Your task to perform on an android device: add a contact in the contacts app Image 0: 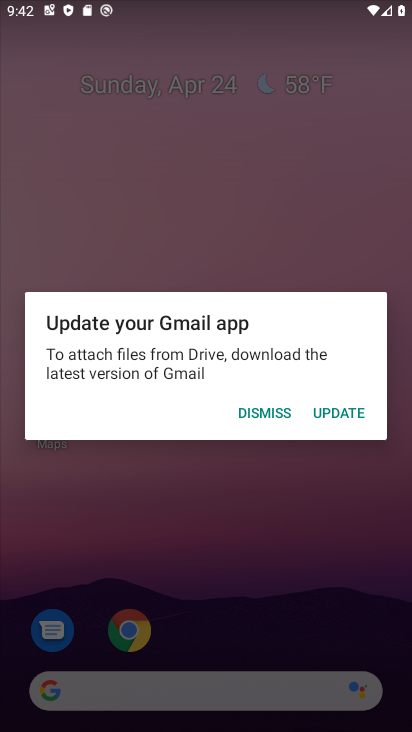
Step 0: press home button
Your task to perform on an android device: add a contact in the contacts app Image 1: 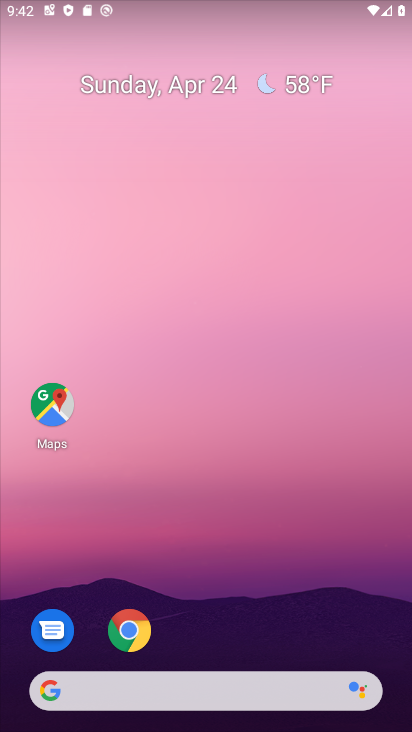
Step 1: drag from (250, 569) to (247, 170)
Your task to perform on an android device: add a contact in the contacts app Image 2: 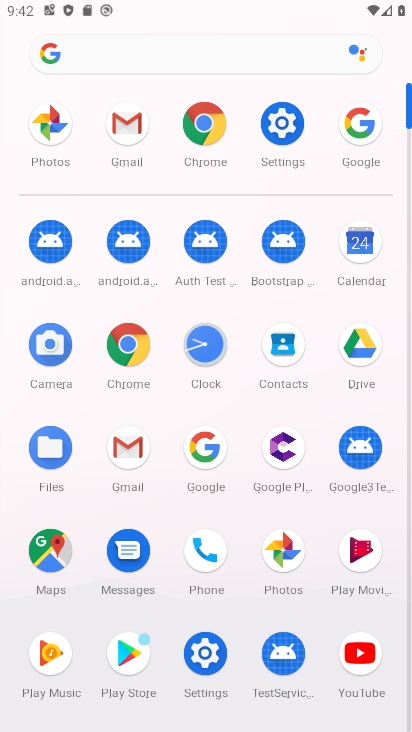
Step 2: click (296, 352)
Your task to perform on an android device: add a contact in the contacts app Image 3: 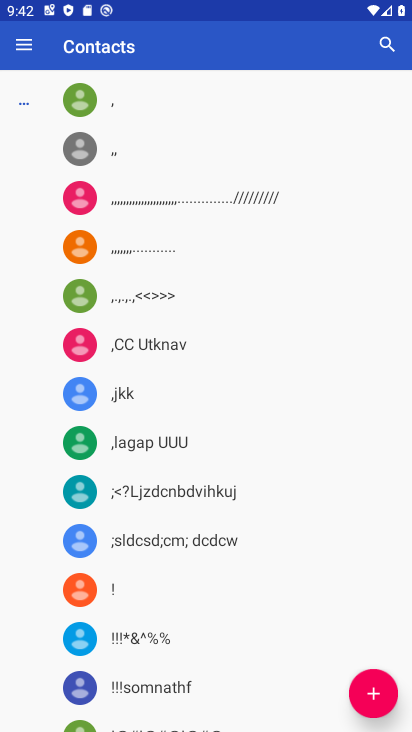
Step 3: click (380, 709)
Your task to perform on an android device: add a contact in the contacts app Image 4: 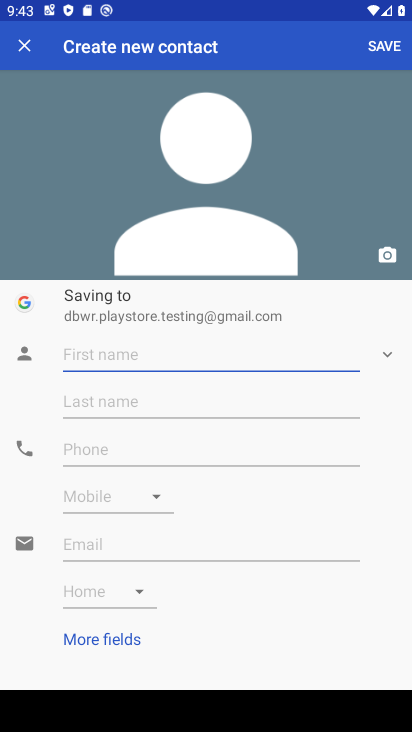
Step 4: type "jhvvcvuj"
Your task to perform on an android device: add a contact in the contacts app Image 5: 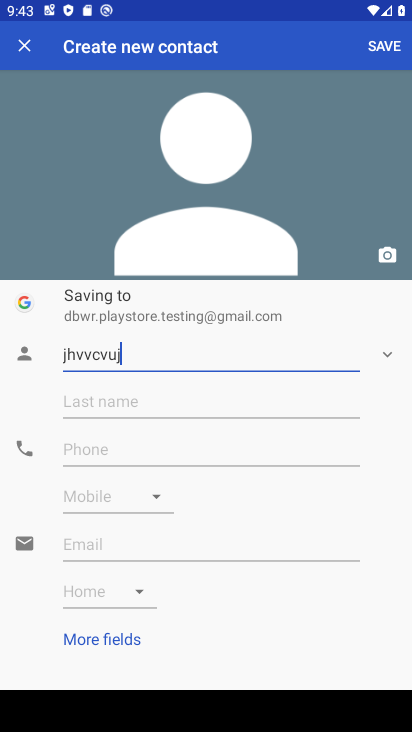
Step 5: type ""
Your task to perform on an android device: add a contact in the contacts app Image 6: 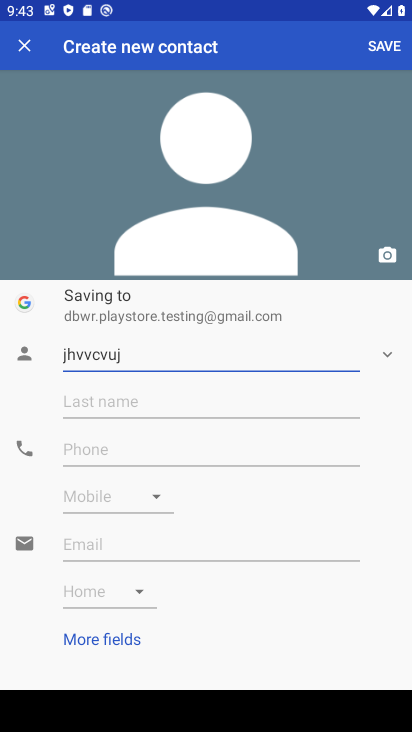
Step 6: click (142, 452)
Your task to perform on an android device: add a contact in the contacts app Image 7: 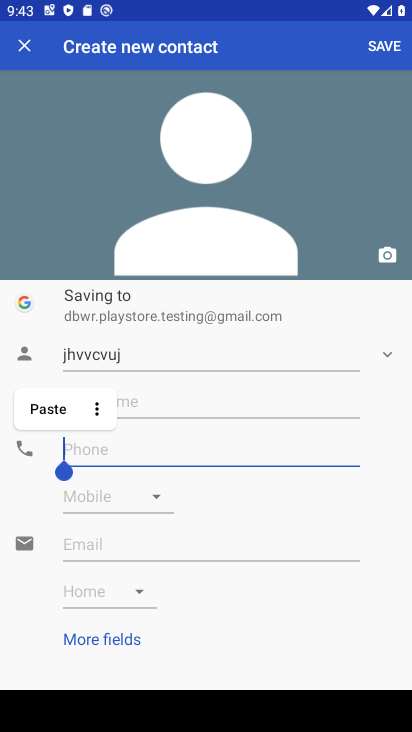
Step 7: type "896666985"
Your task to perform on an android device: add a contact in the contacts app Image 8: 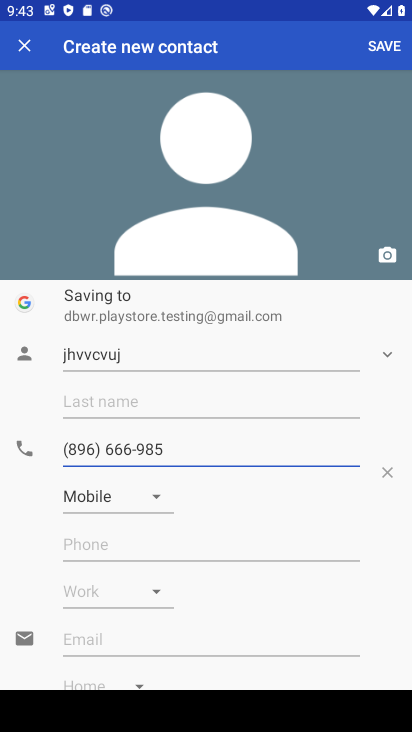
Step 8: click (380, 49)
Your task to perform on an android device: add a contact in the contacts app Image 9: 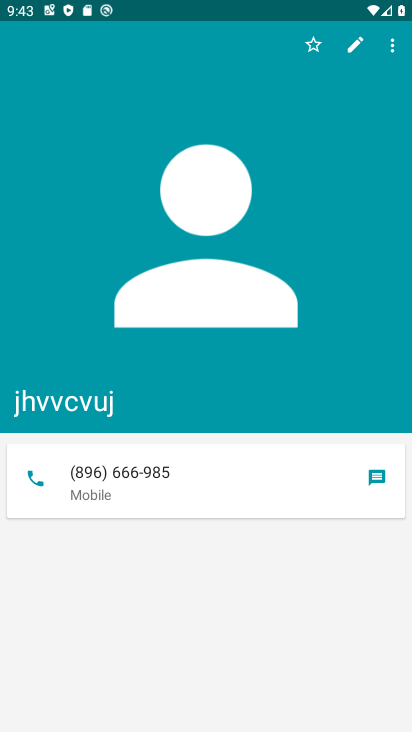
Step 9: task complete